Your task to perform on an android device: turn off location Image 0: 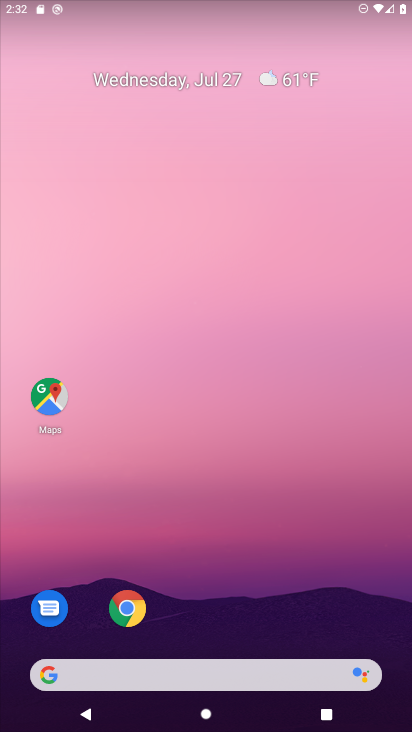
Step 0: drag from (264, 9) to (272, 288)
Your task to perform on an android device: turn off location Image 1: 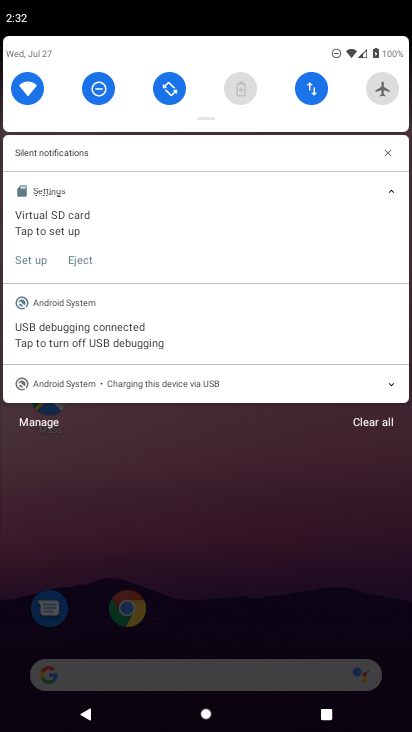
Step 1: drag from (340, 122) to (350, 209)
Your task to perform on an android device: turn off location Image 2: 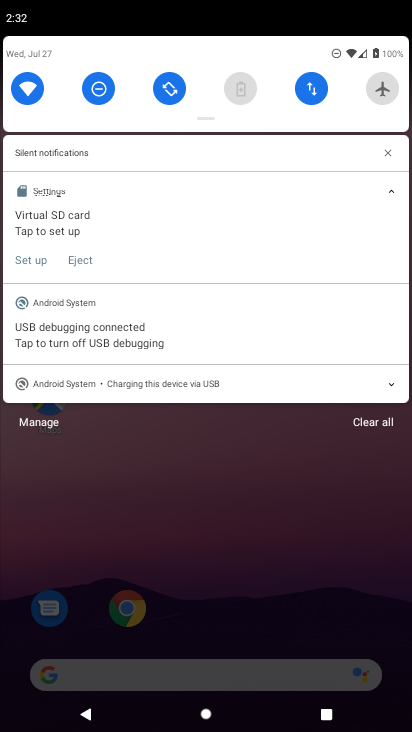
Step 2: drag from (203, 119) to (215, 467)
Your task to perform on an android device: turn off location Image 3: 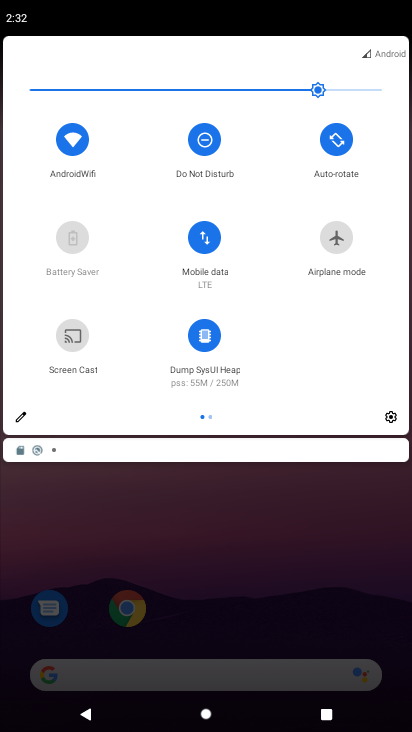
Step 3: click (391, 419)
Your task to perform on an android device: turn off location Image 4: 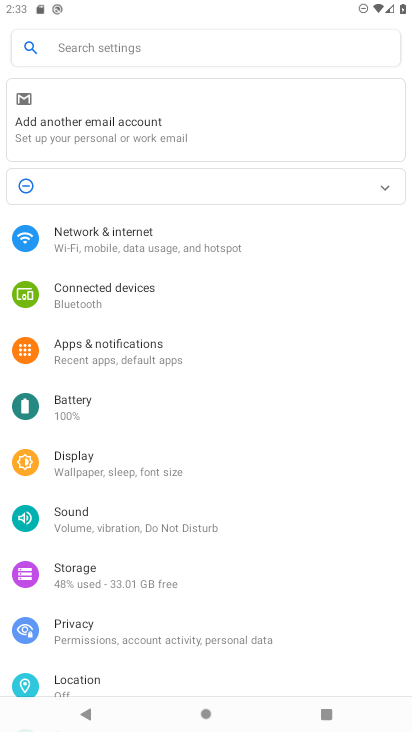
Step 4: click (77, 684)
Your task to perform on an android device: turn off location Image 5: 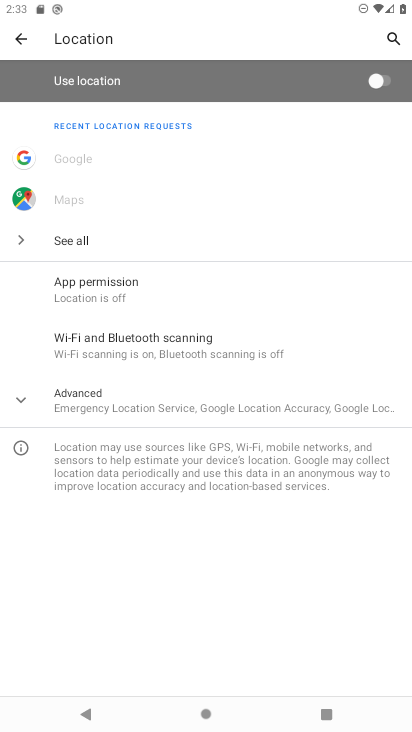
Step 5: task complete